Your task to perform on an android device: Search for 'The Girl on the Train' on Goodreads. Image 0: 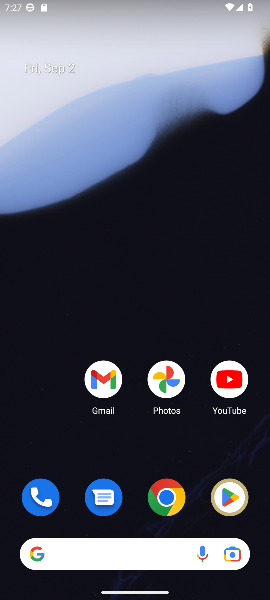
Step 0: click (141, 549)
Your task to perform on an android device: Search for 'The Girl on the Train' on Goodreads. Image 1: 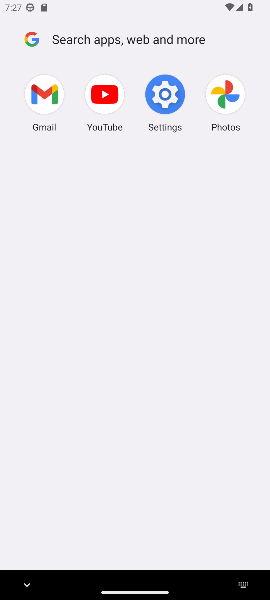
Step 1: press home button
Your task to perform on an android device: Search for 'The Girl on the Train' on Goodreads. Image 2: 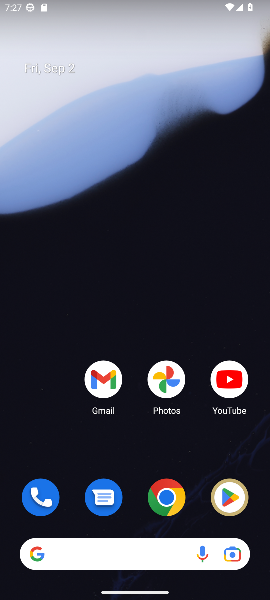
Step 2: drag from (120, 467) to (120, 88)
Your task to perform on an android device: Search for 'The Girl on the Train' on Goodreads. Image 3: 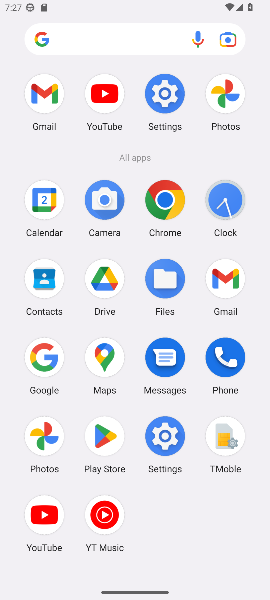
Step 3: click (41, 354)
Your task to perform on an android device: Search for 'The Girl on the Train' on Goodreads. Image 4: 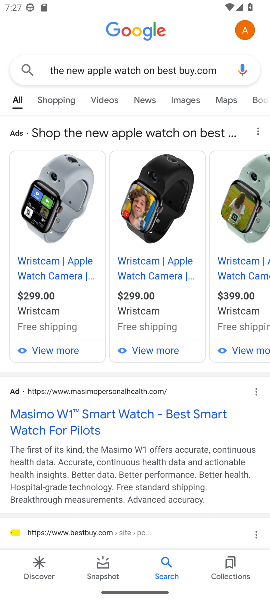
Step 4: click (213, 71)
Your task to perform on an android device: Search for 'The Girl on the Train' on Goodreads. Image 5: 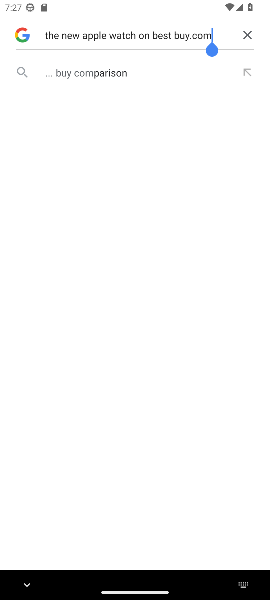
Step 5: click (247, 32)
Your task to perform on an android device: Search for 'The Girl on the Train' on Goodreads. Image 6: 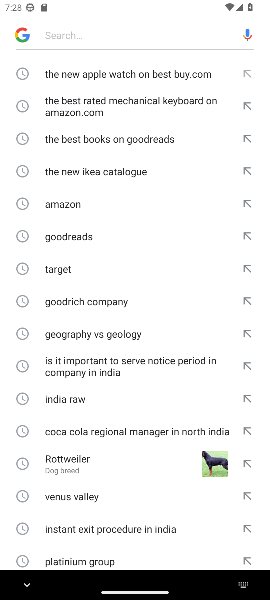
Step 6: type "The Girl on the Train' on Goodreads"
Your task to perform on an android device: Search for 'The Girl on the Train' on Goodreads. Image 7: 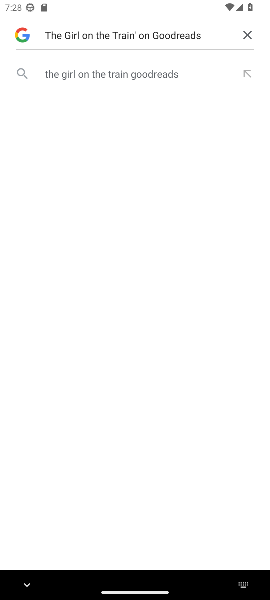
Step 7: click (133, 67)
Your task to perform on an android device: Search for 'The Girl on the Train' on Goodreads. Image 8: 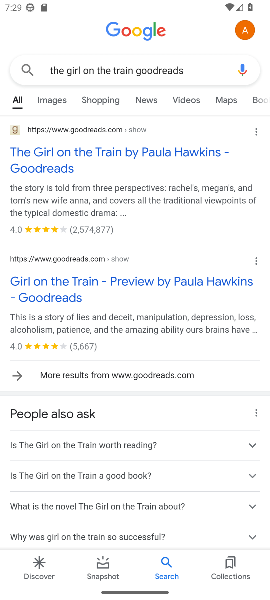
Step 8: click (129, 150)
Your task to perform on an android device: Search for 'The Girl on the Train' on Goodreads. Image 9: 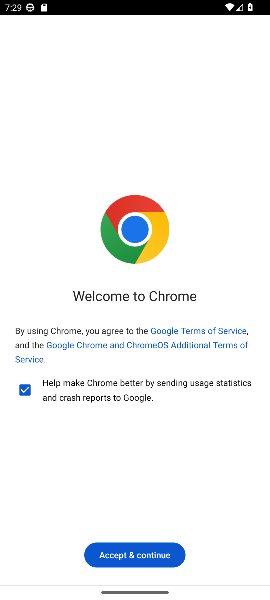
Step 9: click (126, 549)
Your task to perform on an android device: Search for 'The Girl on the Train' on Goodreads. Image 10: 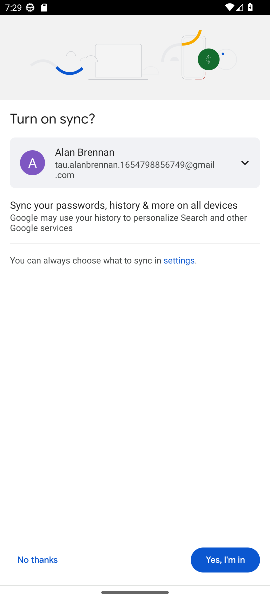
Step 10: click (218, 549)
Your task to perform on an android device: Search for 'The Girl on the Train' on Goodreads. Image 11: 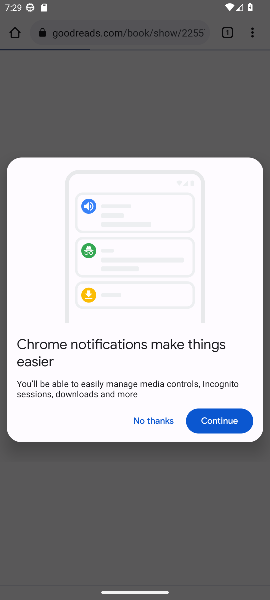
Step 11: click (215, 425)
Your task to perform on an android device: Search for 'The Girl on the Train' on Goodreads. Image 12: 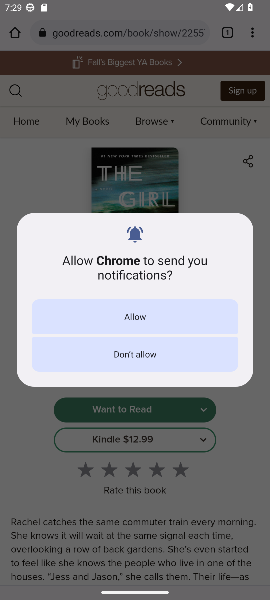
Step 12: click (141, 345)
Your task to perform on an android device: Search for 'The Girl on the Train' on Goodreads. Image 13: 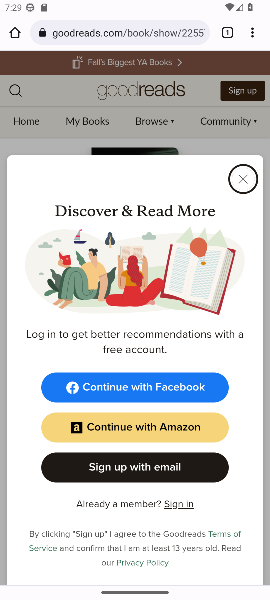
Step 13: task complete